Your task to perform on an android device: check out phone information Image 0: 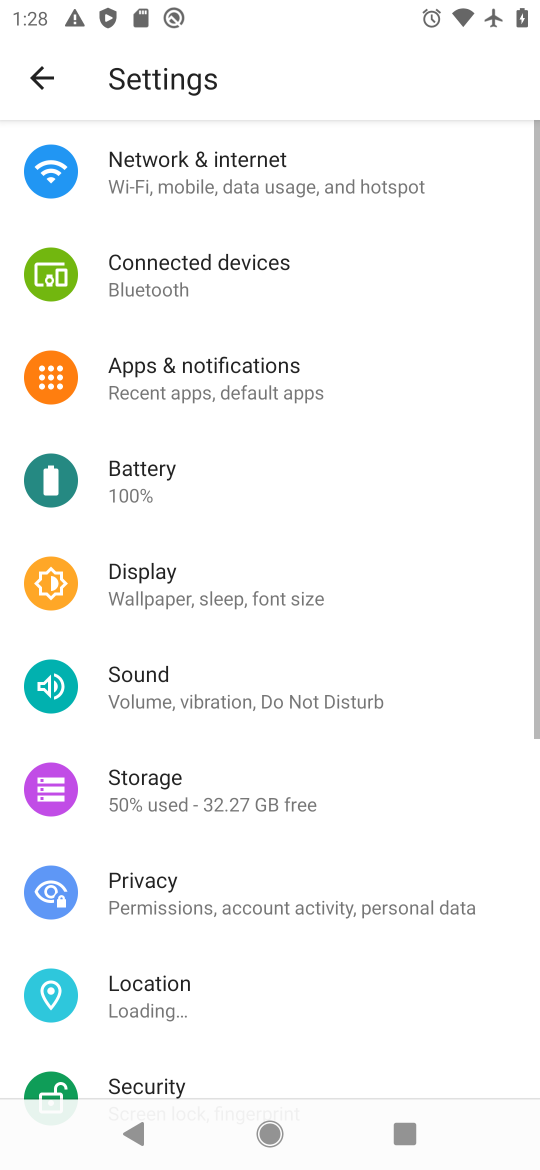
Step 0: press home button
Your task to perform on an android device: check out phone information Image 1: 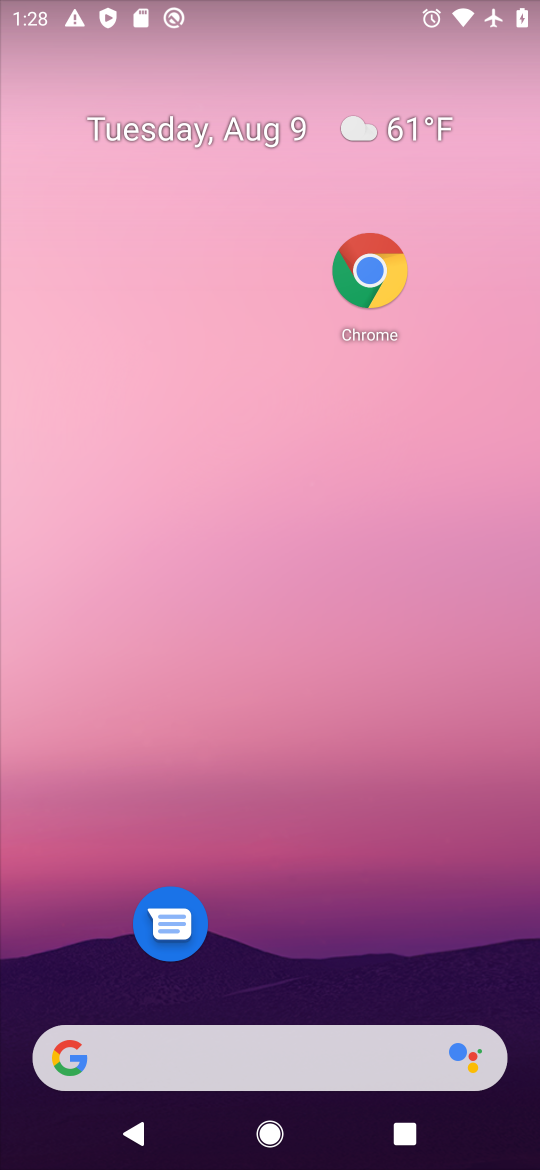
Step 1: drag from (332, 1005) to (239, 103)
Your task to perform on an android device: check out phone information Image 2: 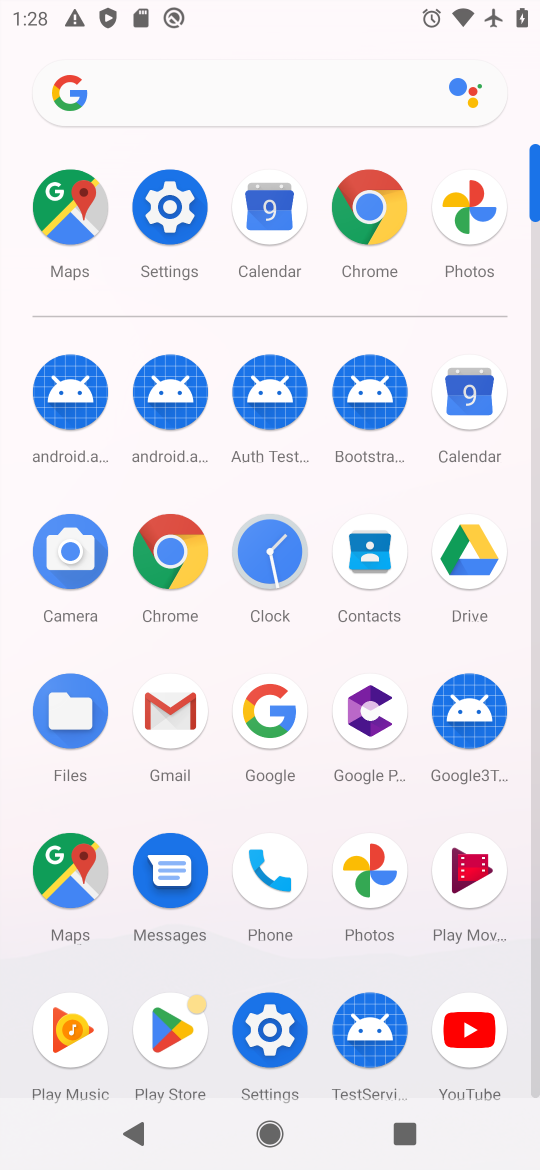
Step 2: click (198, 199)
Your task to perform on an android device: check out phone information Image 3: 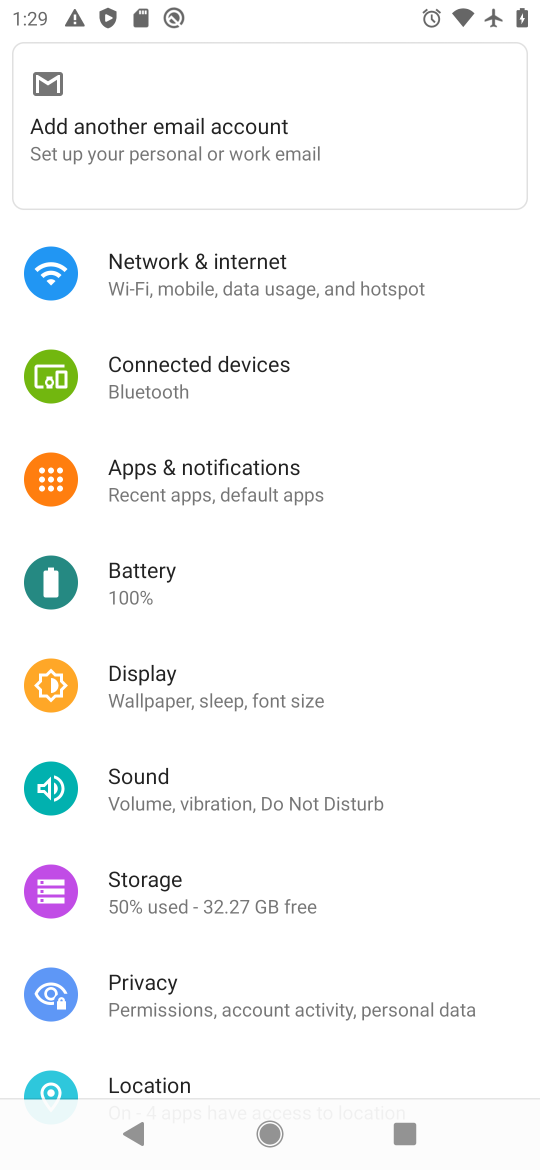
Step 3: task complete